Your task to perform on an android device: set the timer Image 0: 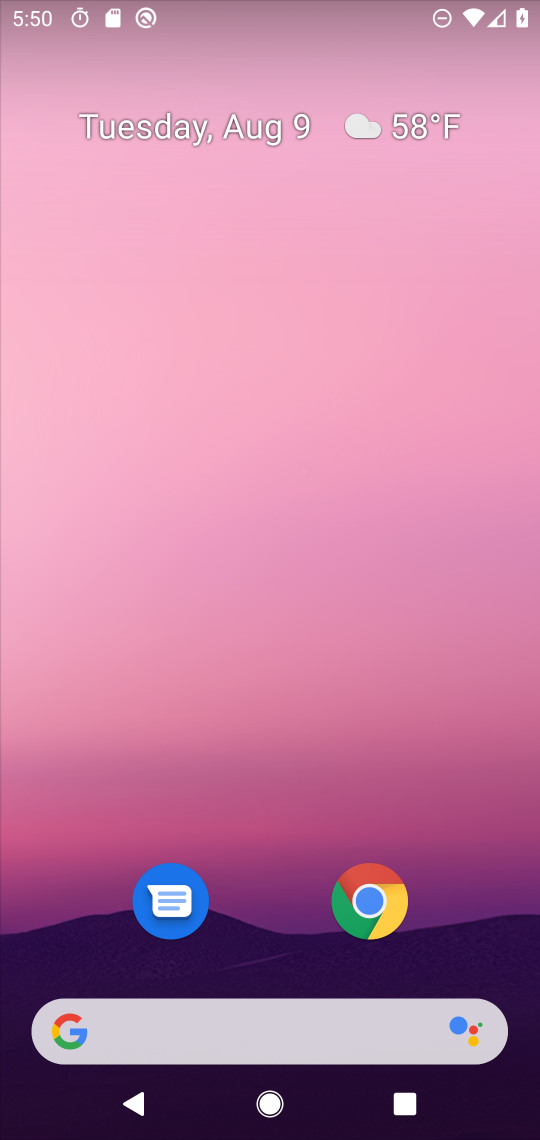
Step 0: drag from (227, 951) to (435, 225)
Your task to perform on an android device: set the timer Image 1: 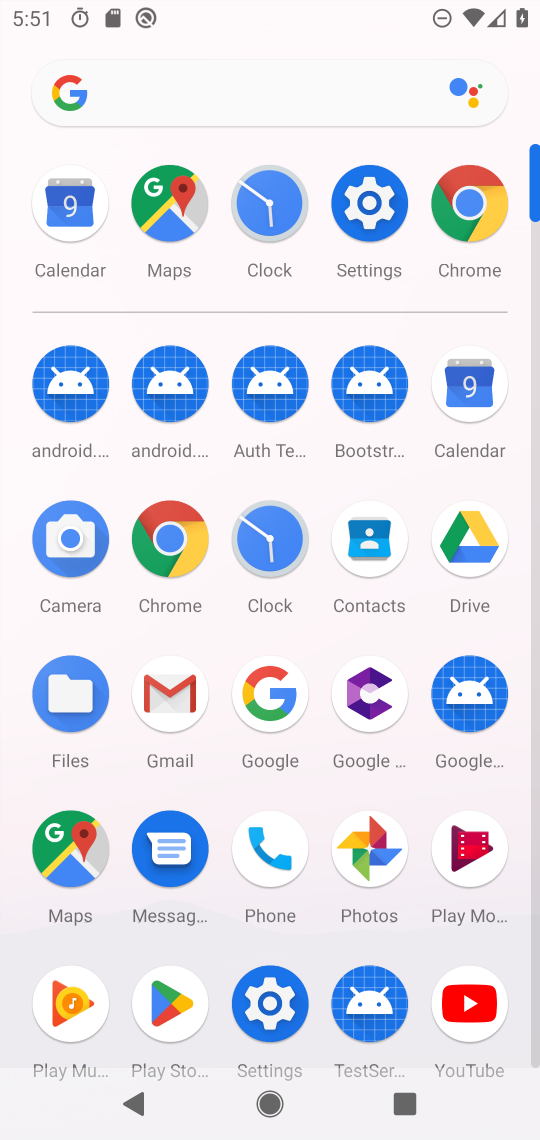
Step 1: click (252, 555)
Your task to perform on an android device: set the timer Image 2: 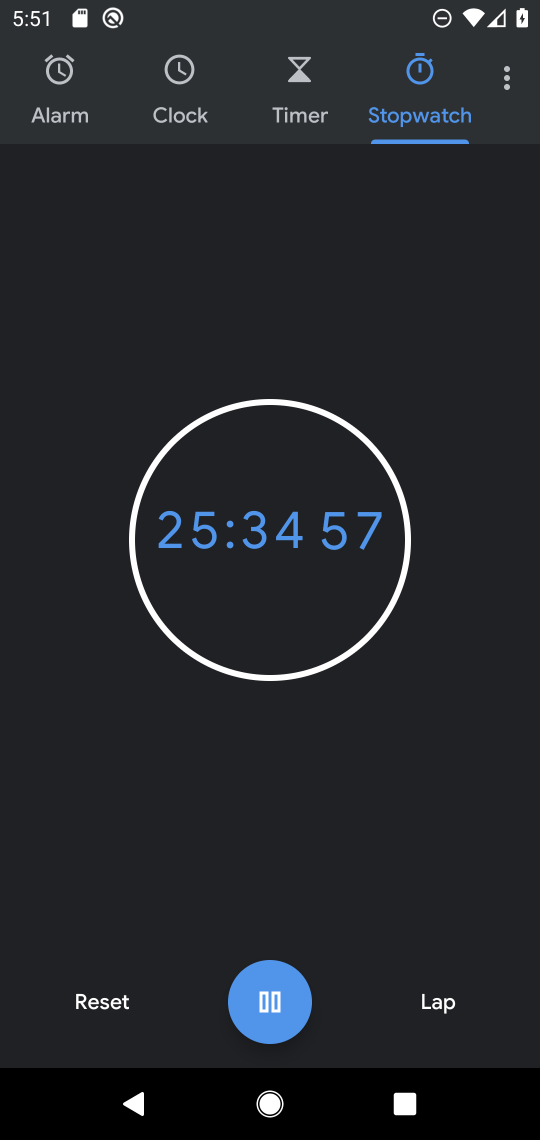
Step 2: click (288, 100)
Your task to perform on an android device: set the timer Image 3: 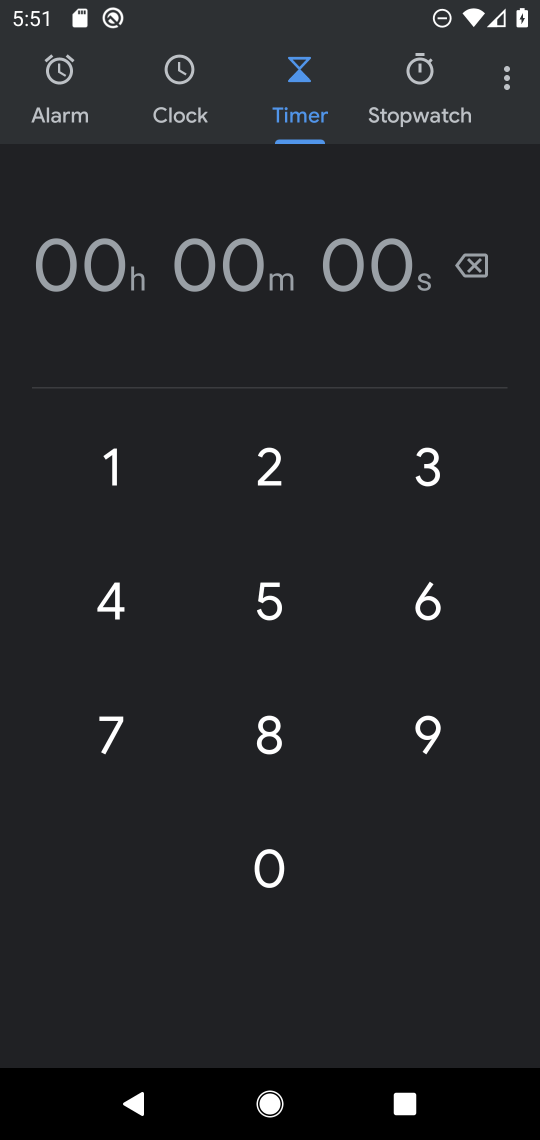
Step 3: click (107, 453)
Your task to perform on an android device: set the timer Image 4: 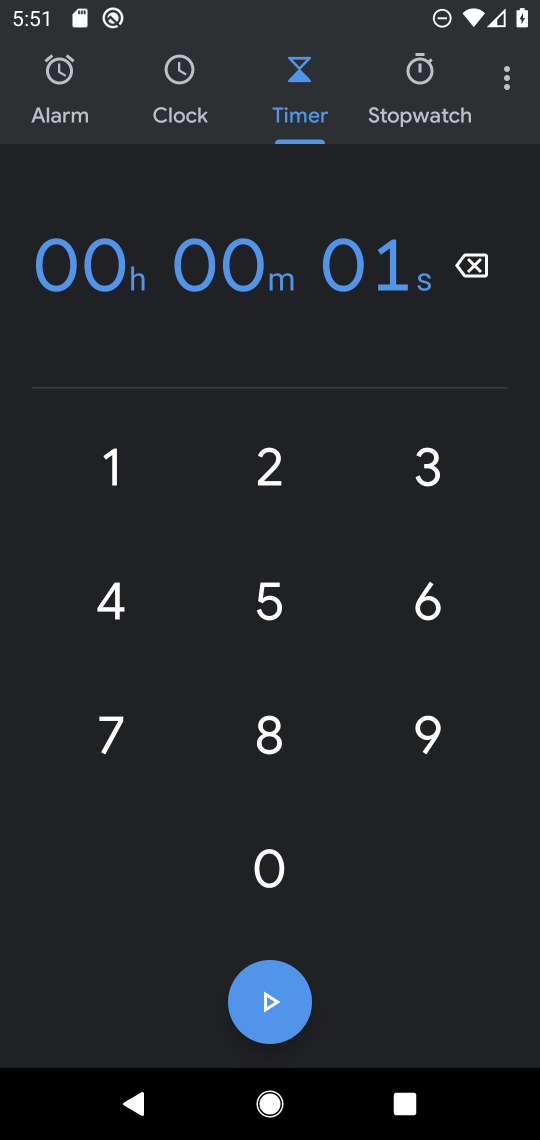
Step 4: click (264, 736)
Your task to perform on an android device: set the timer Image 5: 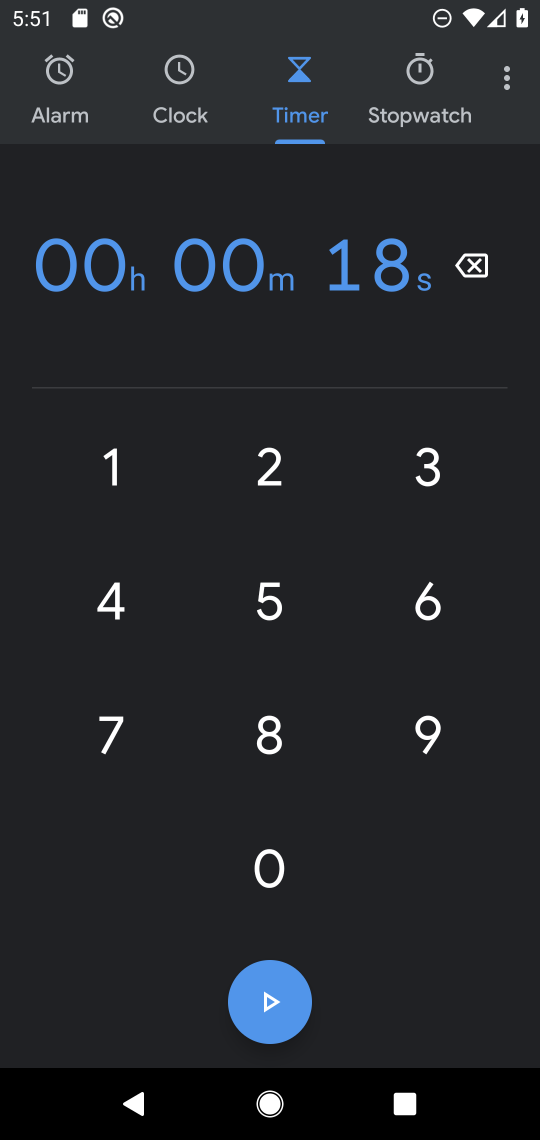
Step 5: click (279, 597)
Your task to perform on an android device: set the timer Image 6: 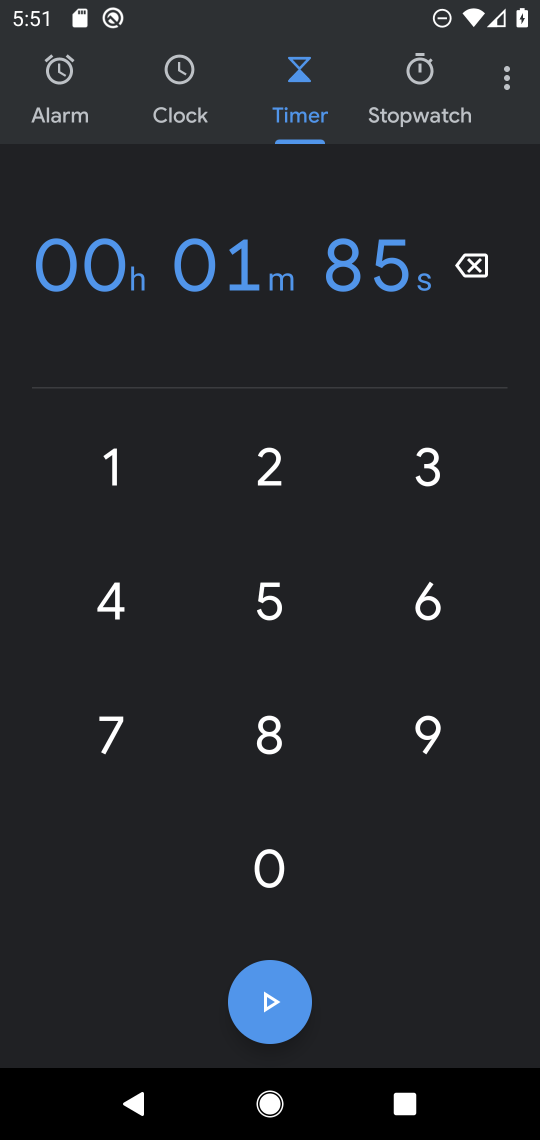
Step 6: click (130, 608)
Your task to perform on an android device: set the timer Image 7: 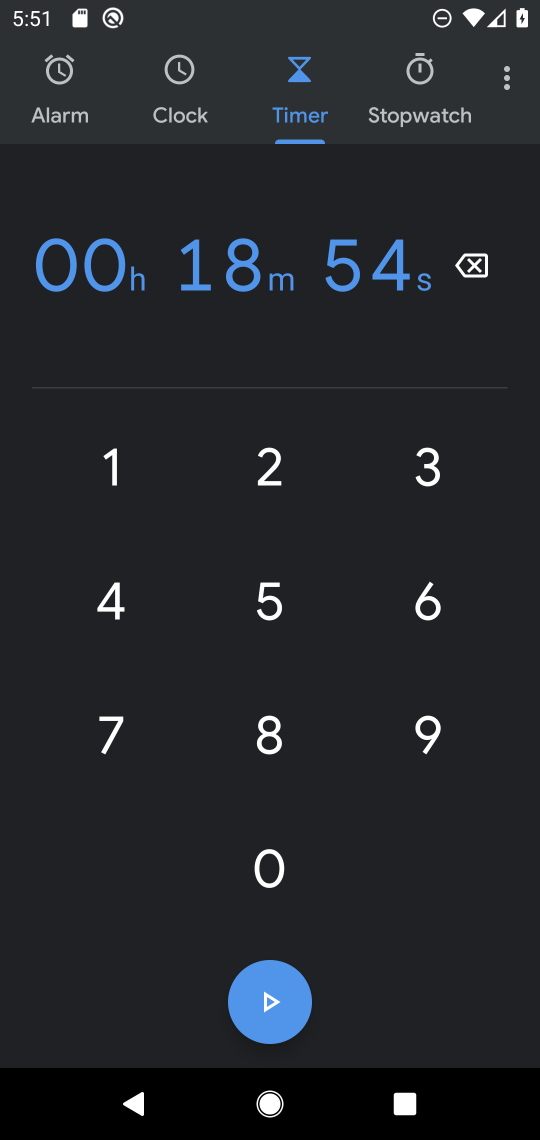
Step 7: click (267, 590)
Your task to perform on an android device: set the timer Image 8: 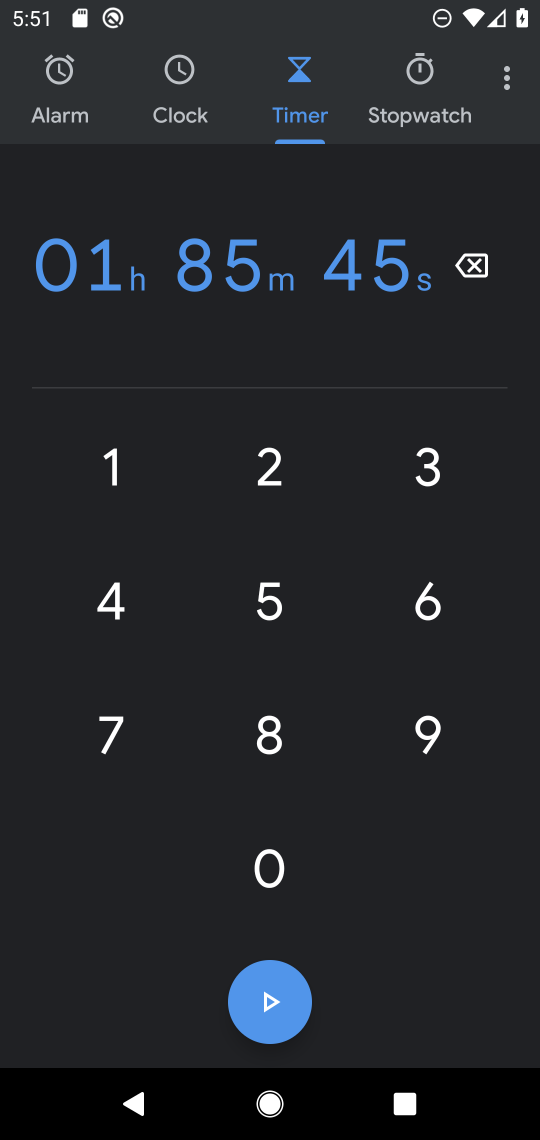
Step 8: click (272, 999)
Your task to perform on an android device: set the timer Image 9: 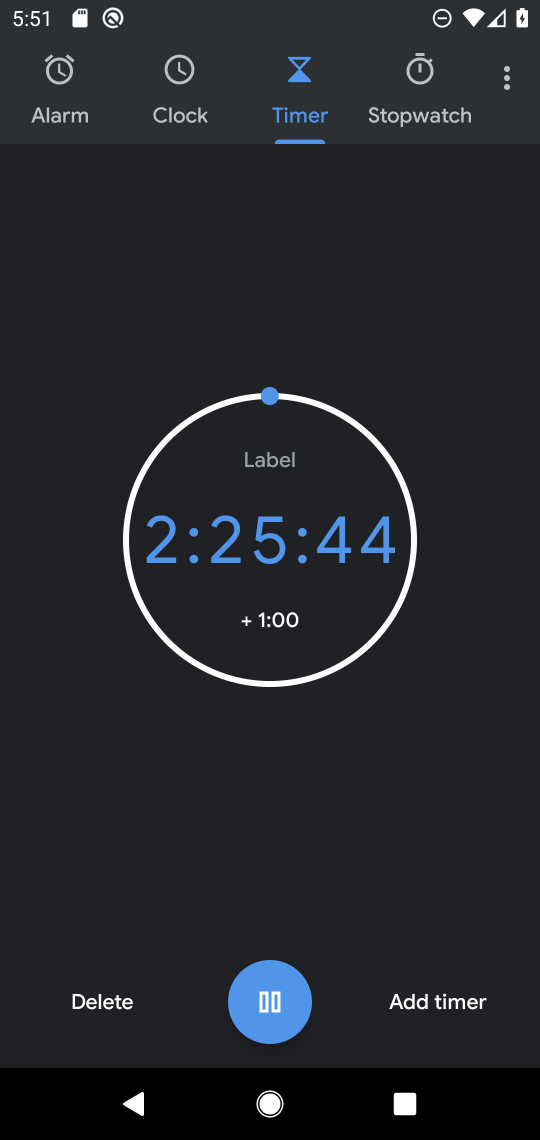
Step 9: task complete